Your task to perform on an android device: change notification settings in the gmail app Image 0: 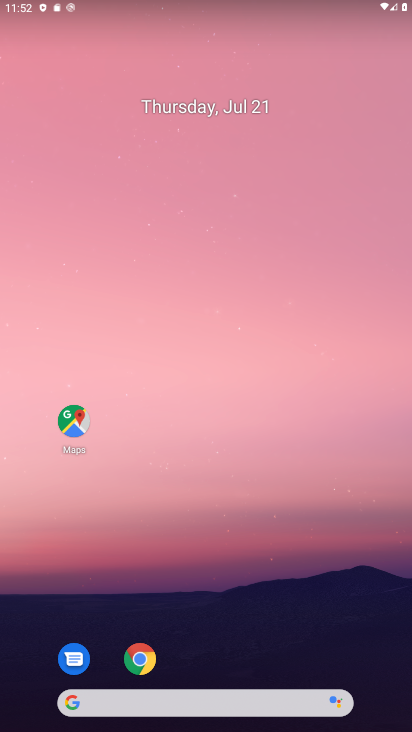
Step 0: task complete